Your task to perform on an android device: Open settings Image 0: 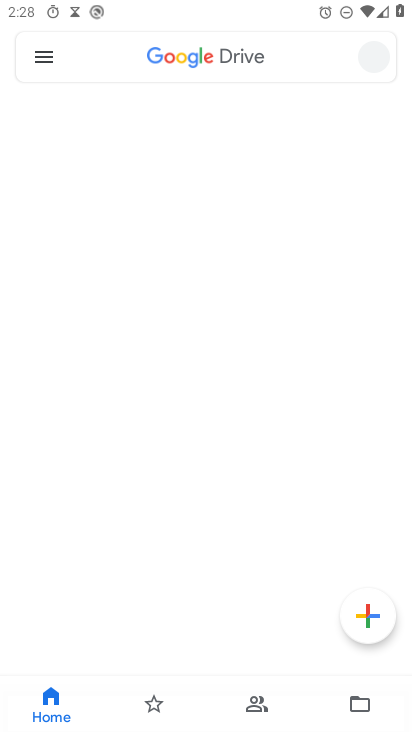
Step 0: click (137, 619)
Your task to perform on an android device: Open settings Image 1: 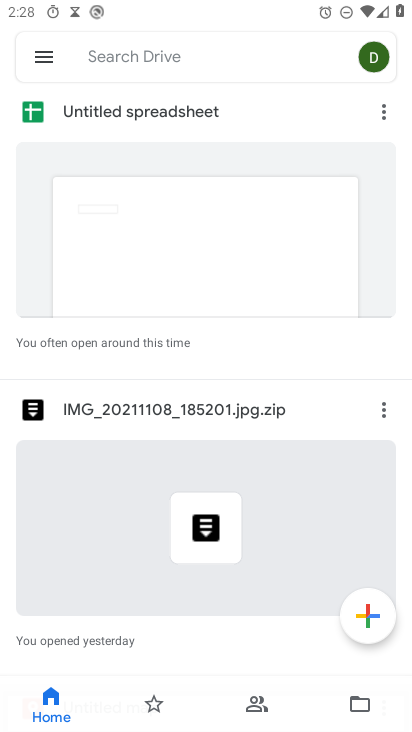
Step 1: press back button
Your task to perform on an android device: Open settings Image 2: 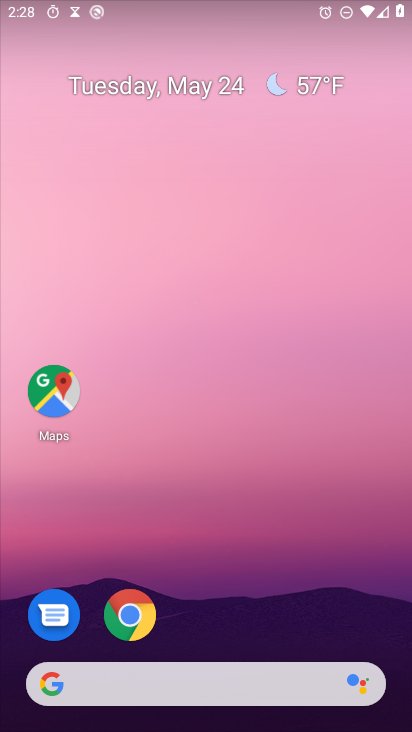
Step 2: drag from (158, 649) to (189, 192)
Your task to perform on an android device: Open settings Image 3: 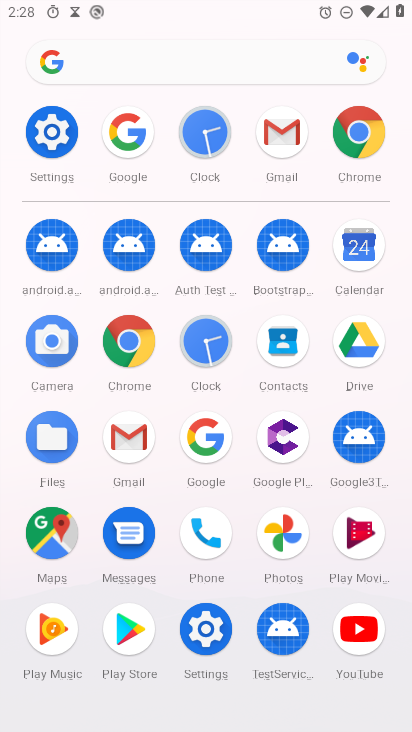
Step 3: click (61, 136)
Your task to perform on an android device: Open settings Image 4: 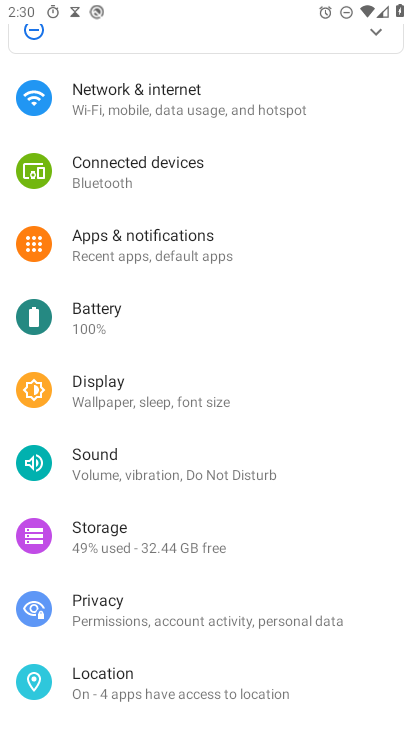
Step 4: task complete